Your task to perform on an android device: turn on the 24-hour format for clock Image 0: 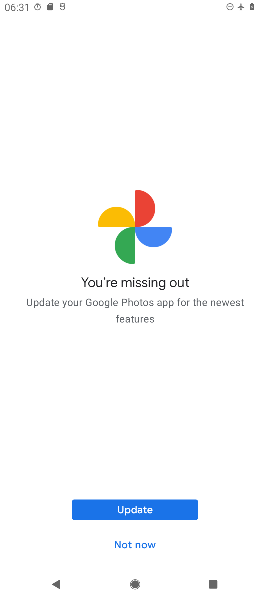
Step 0: press home button
Your task to perform on an android device: turn on the 24-hour format for clock Image 1: 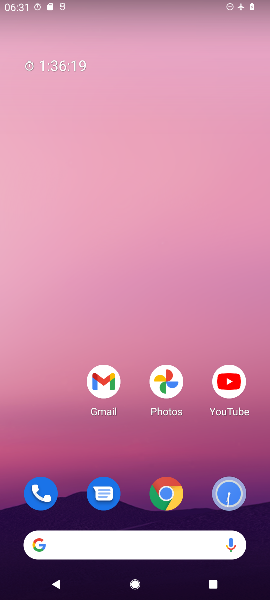
Step 1: drag from (60, 445) to (51, 162)
Your task to perform on an android device: turn on the 24-hour format for clock Image 2: 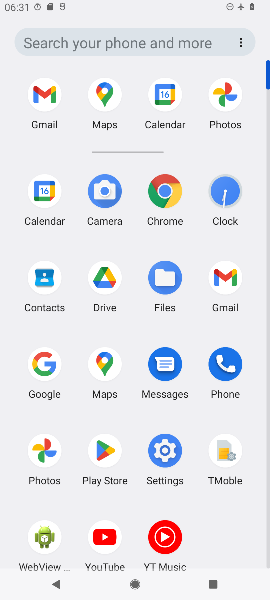
Step 2: click (224, 189)
Your task to perform on an android device: turn on the 24-hour format for clock Image 3: 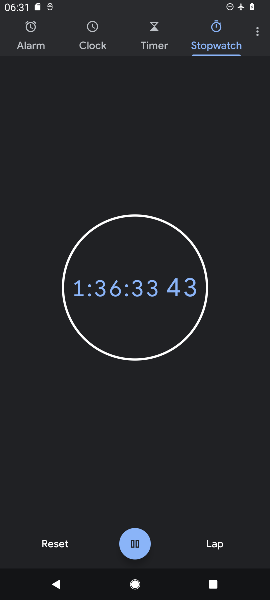
Step 3: click (258, 33)
Your task to perform on an android device: turn on the 24-hour format for clock Image 4: 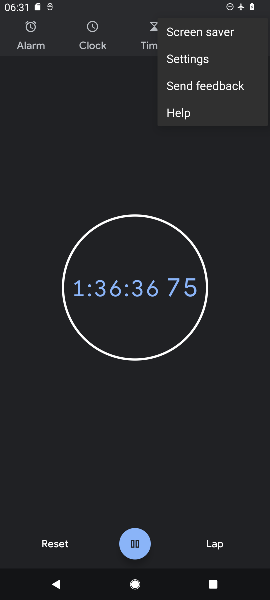
Step 4: click (220, 58)
Your task to perform on an android device: turn on the 24-hour format for clock Image 5: 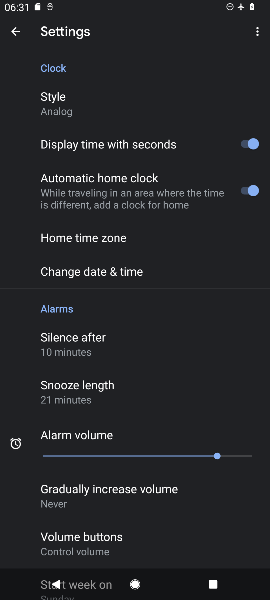
Step 5: drag from (209, 311) to (209, 207)
Your task to perform on an android device: turn on the 24-hour format for clock Image 6: 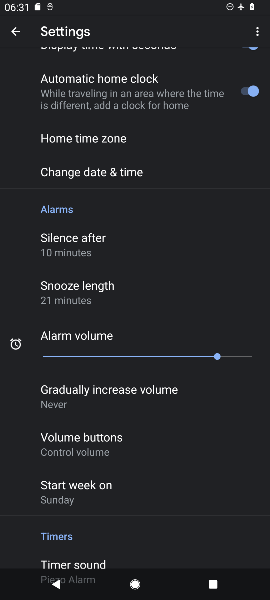
Step 6: drag from (185, 289) to (174, 92)
Your task to perform on an android device: turn on the 24-hour format for clock Image 7: 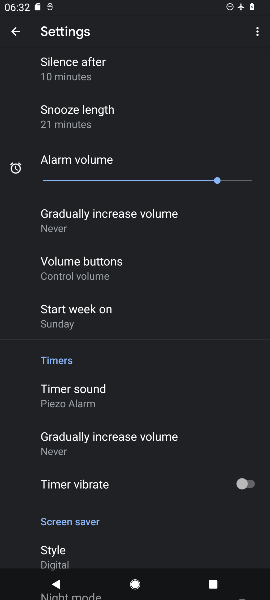
Step 7: drag from (152, 105) to (152, 222)
Your task to perform on an android device: turn on the 24-hour format for clock Image 8: 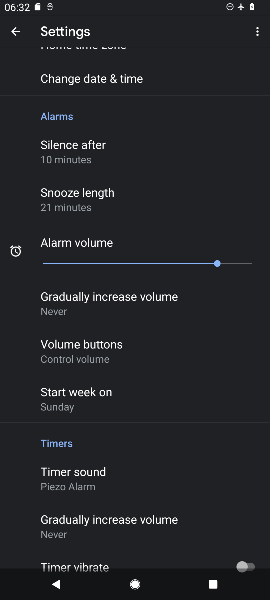
Step 8: drag from (166, 117) to (166, 263)
Your task to perform on an android device: turn on the 24-hour format for clock Image 9: 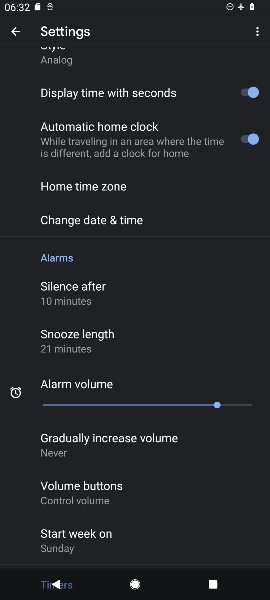
Step 9: click (113, 216)
Your task to perform on an android device: turn on the 24-hour format for clock Image 10: 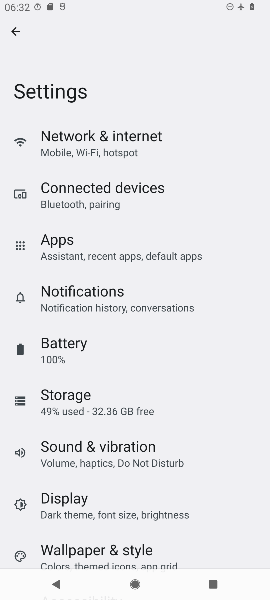
Step 10: task complete